Your task to perform on an android device: Go to CNN.com Image 0: 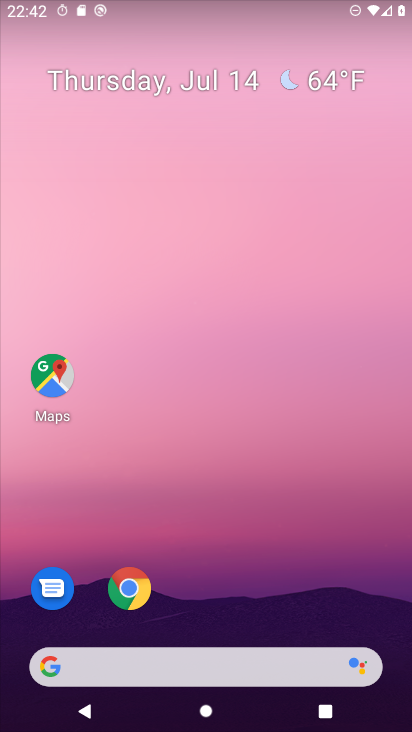
Step 0: drag from (365, 605) to (366, 188)
Your task to perform on an android device: Go to CNN.com Image 1: 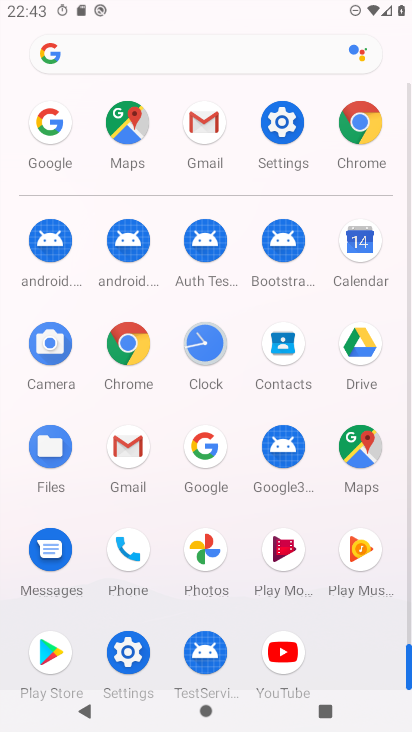
Step 1: click (362, 128)
Your task to perform on an android device: Go to CNN.com Image 2: 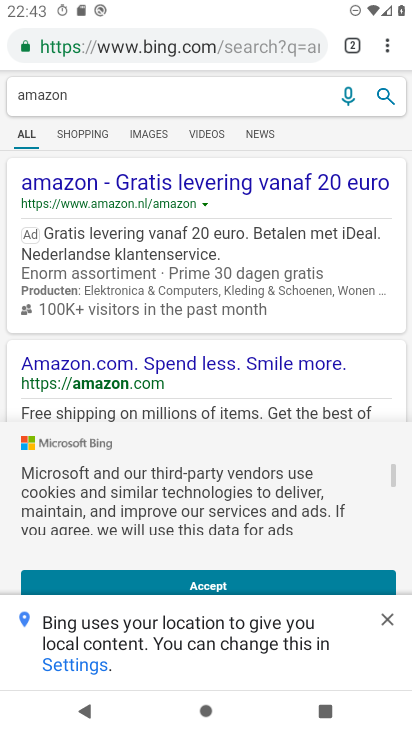
Step 2: click (280, 51)
Your task to perform on an android device: Go to CNN.com Image 3: 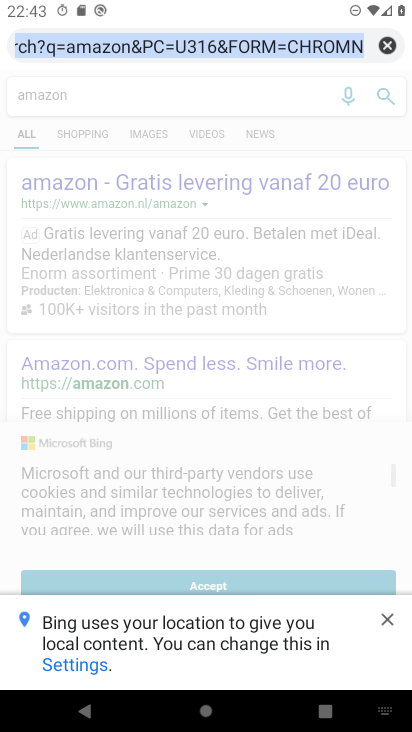
Step 3: type "cnn.com"
Your task to perform on an android device: Go to CNN.com Image 4: 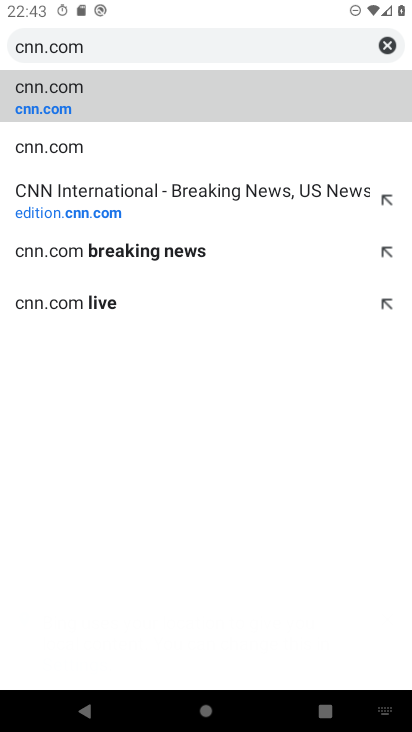
Step 4: click (330, 104)
Your task to perform on an android device: Go to CNN.com Image 5: 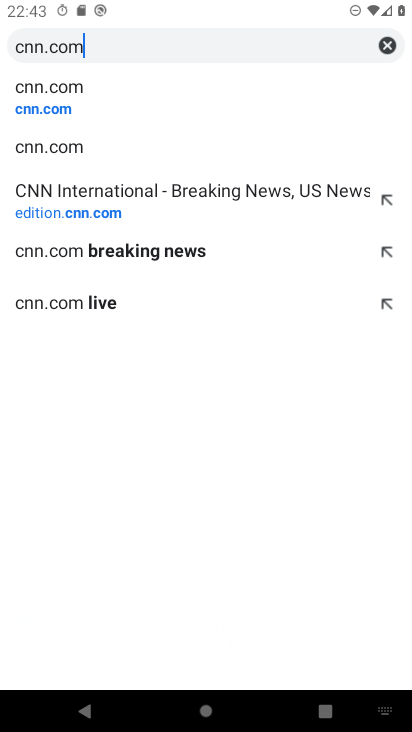
Step 5: click (154, 114)
Your task to perform on an android device: Go to CNN.com Image 6: 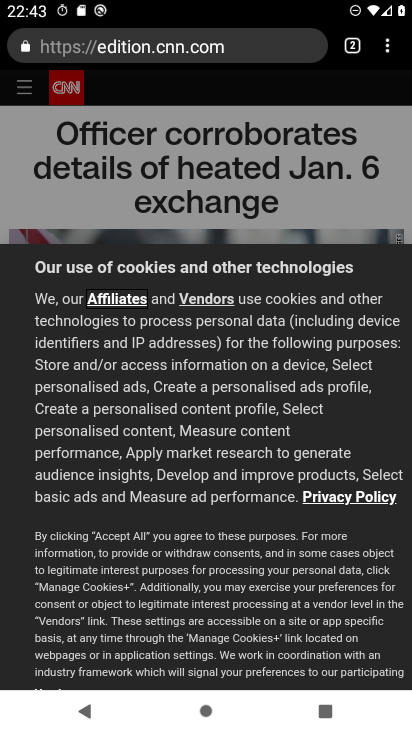
Step 6: task complete